Your task to perform on an android device: toggle javascript in the chrome app Image 0: 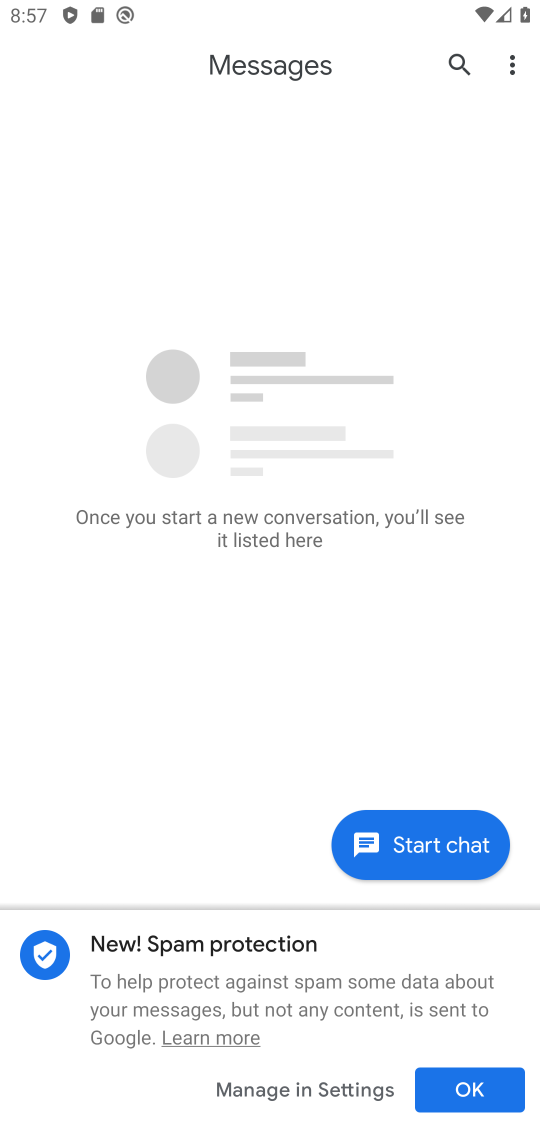
Step 0: press home button
Your task to perform on an android device: toggle javascript in the chrome app Image 1: 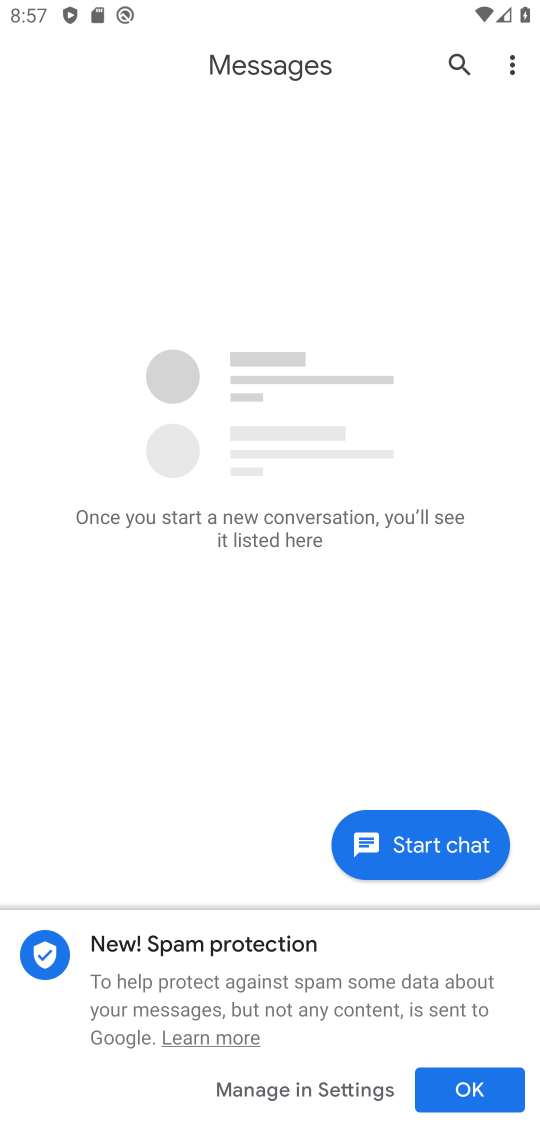
Step 1: press home button
Your task to perform on an android device: toggle javascript in the chrome app Image 2: 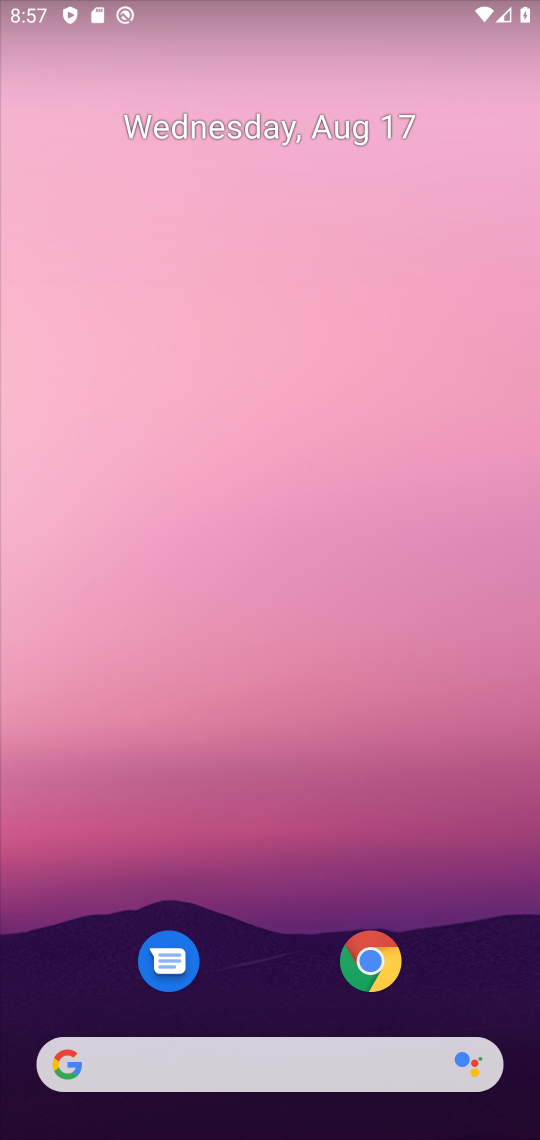
Step 2: drag from (243, 605) to (258, 97)
Your task to perform on an android device: toggle javascript in the chrome app Image 3: 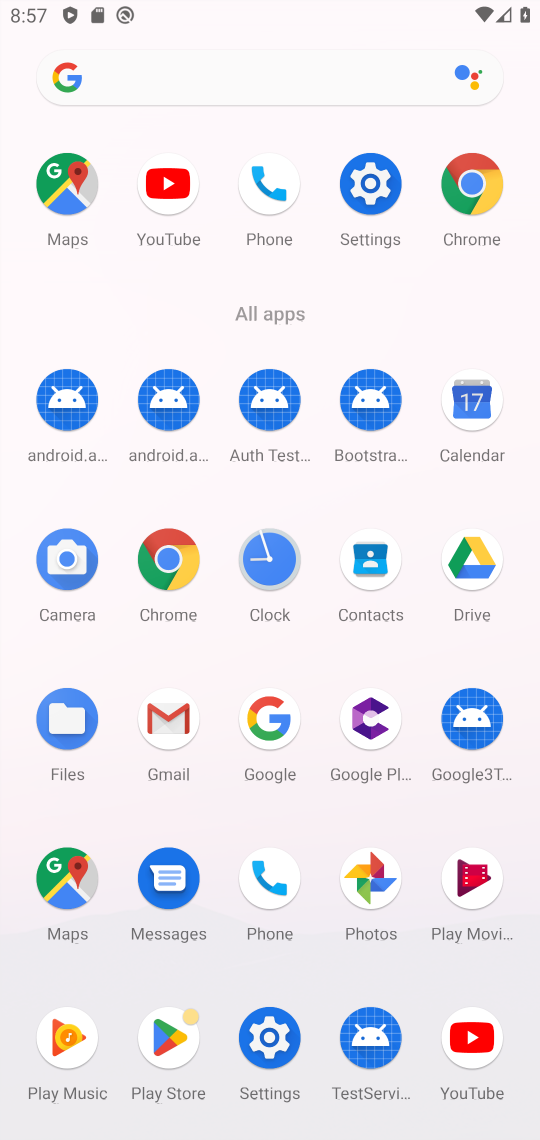
Step 3: click (150, 567)
Your task to perform on an android device: toggle javascript in the chrome app Image 4: 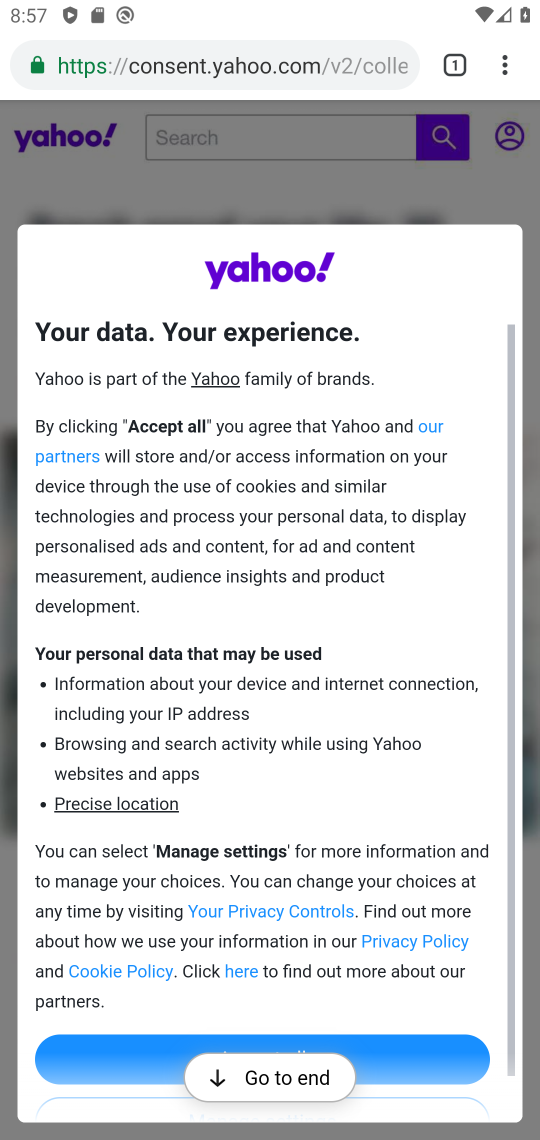
Step 4: drag from (502, 58) to (289, 860)
Your task to perform on an android device: toggle javascript in the chrome app Image 5: 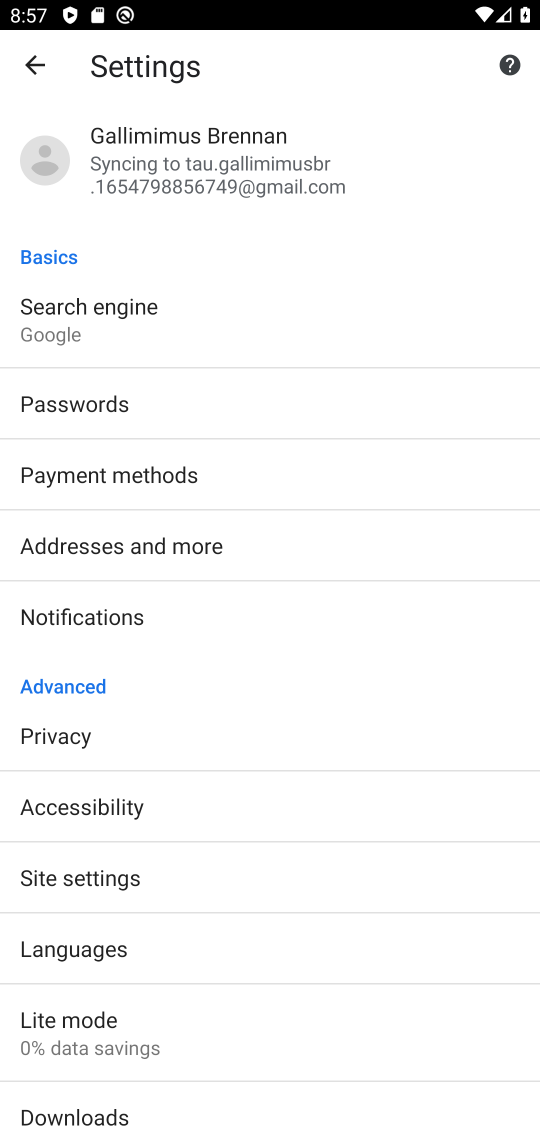
Step 5: drag from (279, 827) to (347, 142)
Your task to perform on an android device: toggle javascript in the chrome app Image 6: 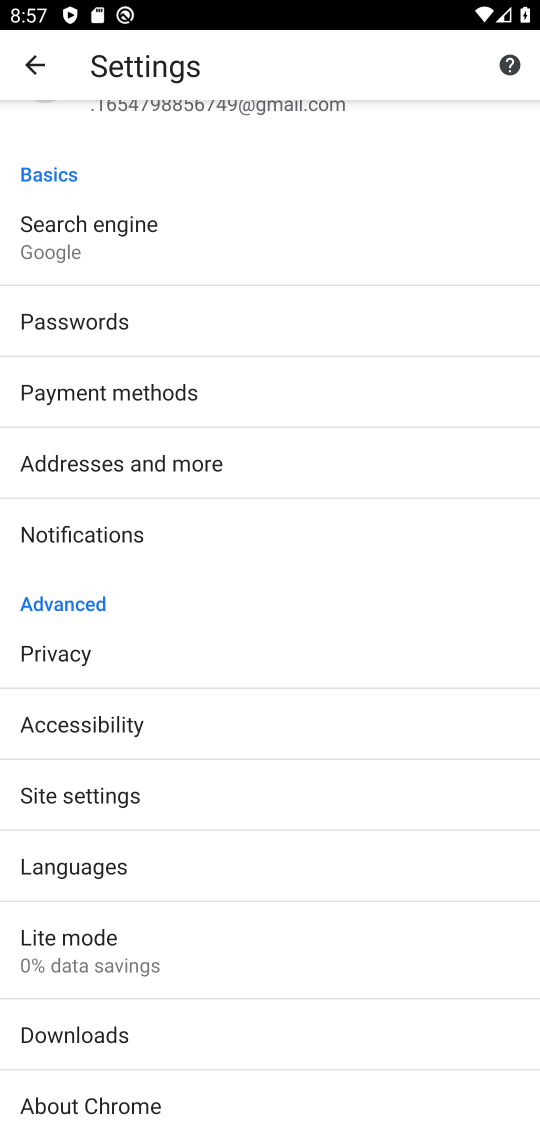
Step 6: click (107, 797)
Your task to perform on an android device: toggle javascript in the chrome app Image 7: 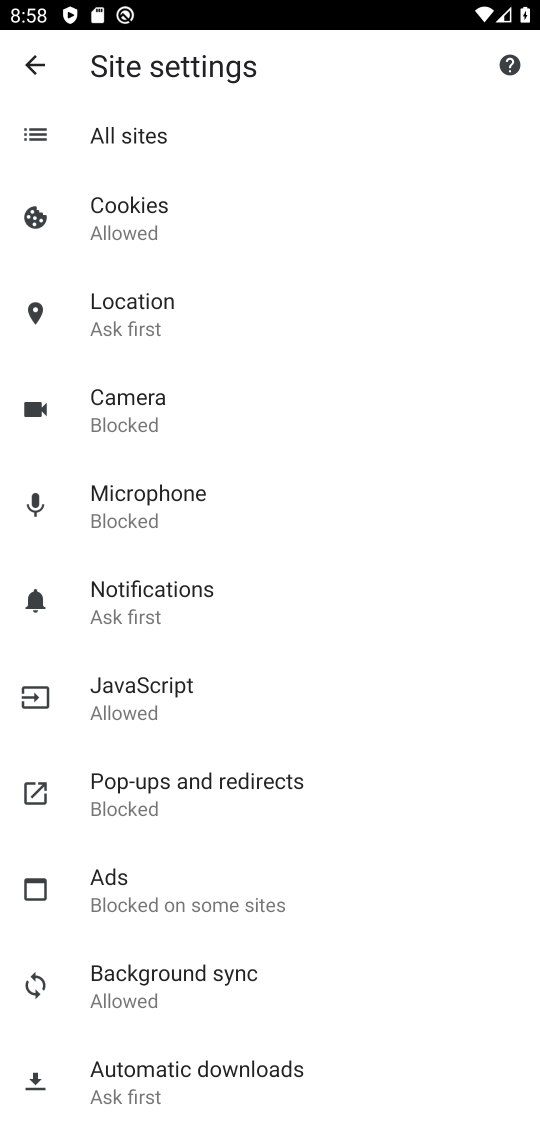
Step 7: click (116, 698)
Your task to perform on an android device: toggle javascript in the chrome app Image 8: 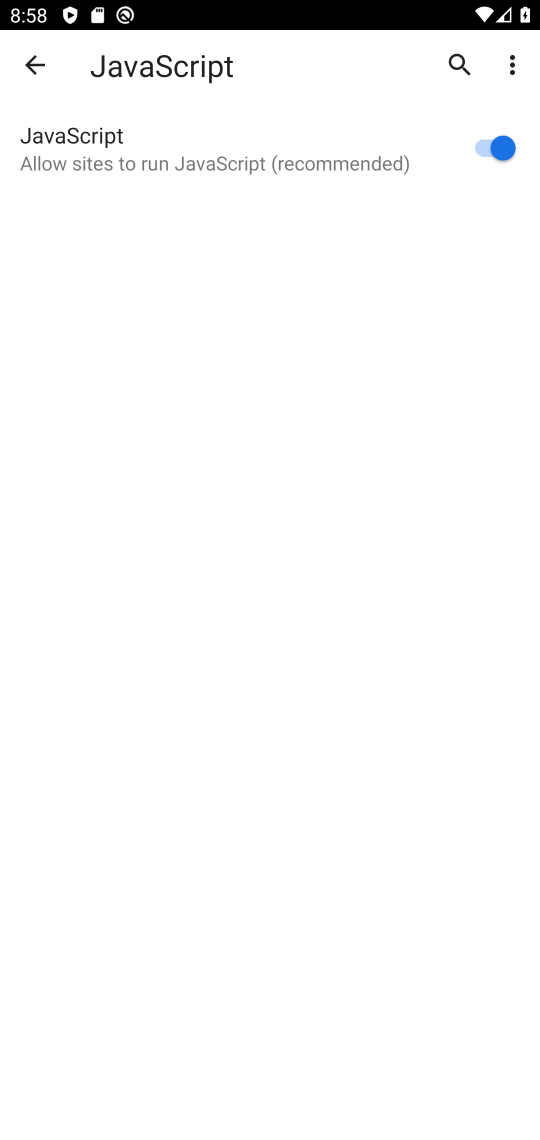
Step 8: click (506, 151)
Your task to perform on an android device: toggle javascript in the chrome app Image 9: 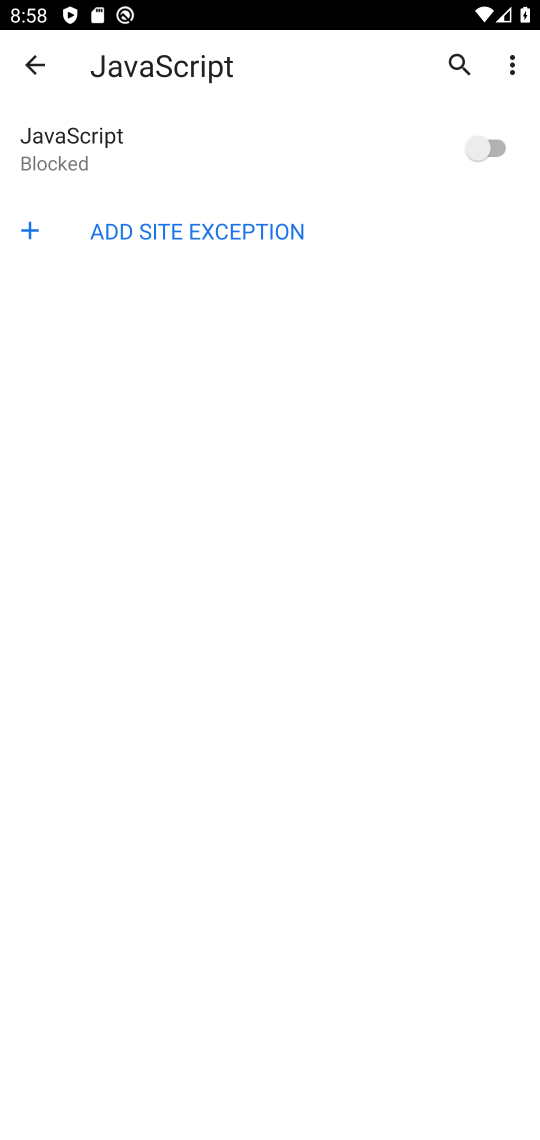
Step 9: task complete